Your task to perform on an android device: Go to settings Image 0: 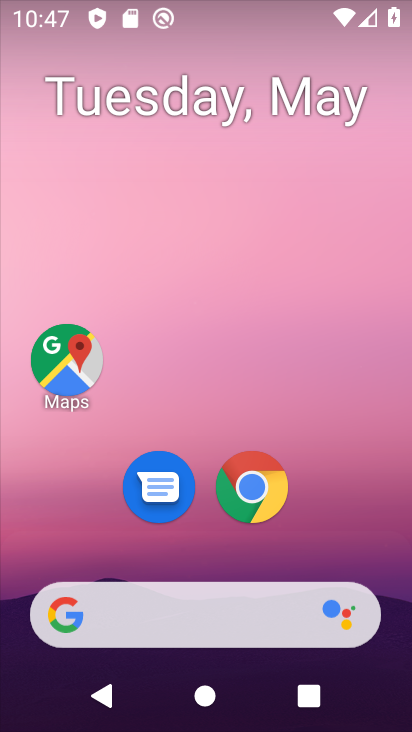
Step 0: drag from (330, 539) to (234, 10)
Your task to perform on an android device: Go to settings Image 1: 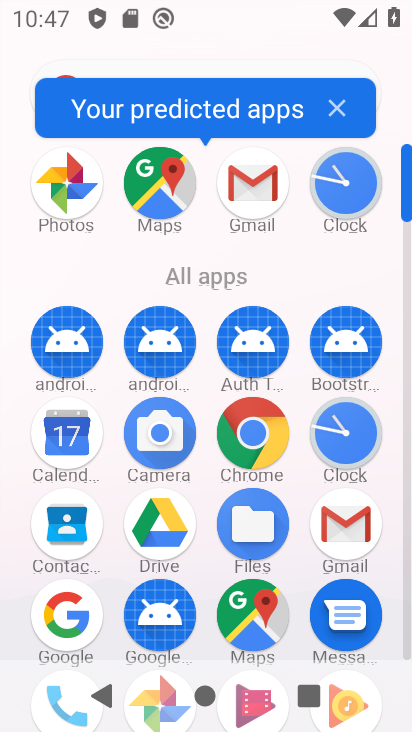
Step 1: drag from (198, 281) to (189, 6)
Your task to perform on an android device: Go to settings Image 2: 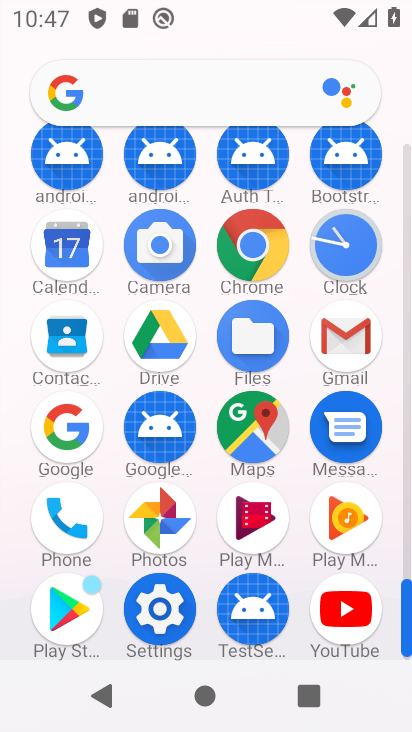
Step 2: click (163, 621)
Your task to perform on an android device: Go to settings Image 3: 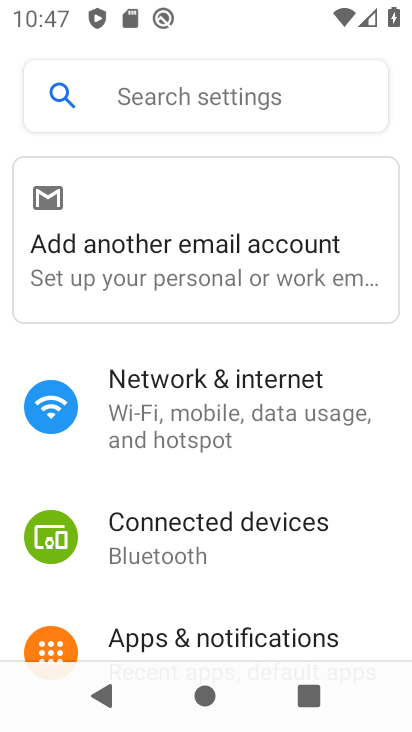
Step 3: task complete